Your task to perform on an android device: change the clock display to show seconds Image 0: 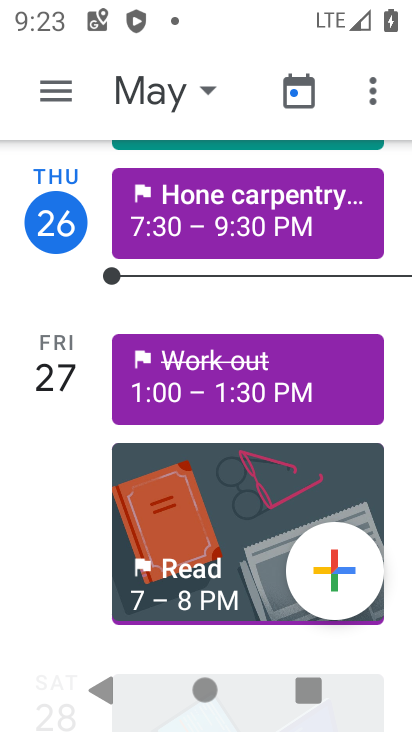
Step 0: press home button
Your task to perform on an android device: change the clock display to show seconds Image 1: 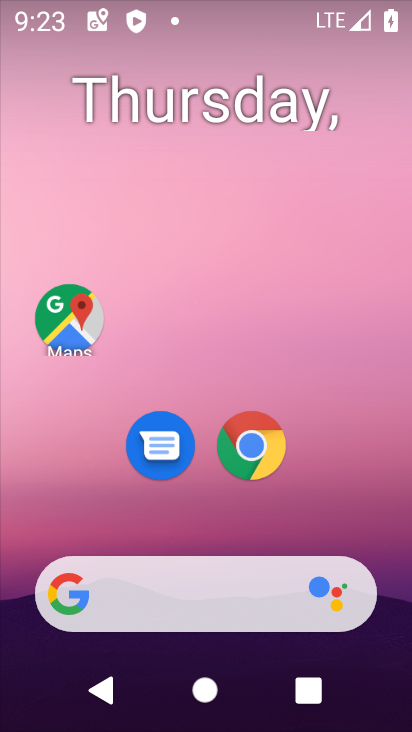
Step 1: drag from (181, 537) to (340, 123)
Your task to perform on an android device: change the clock display to show seconds Image 2: 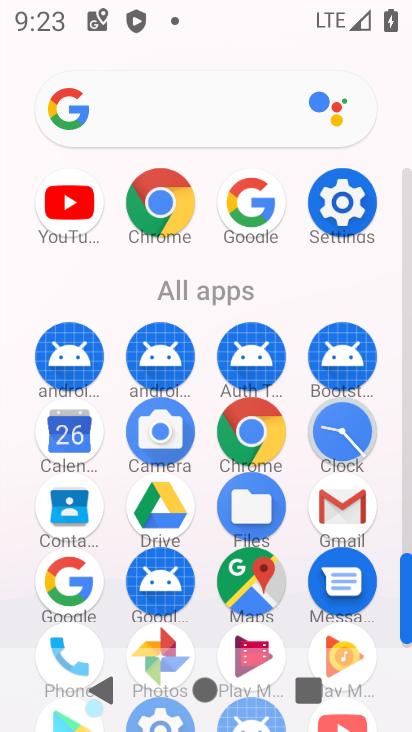
Step 2: click (333, 430)
Your task to perform on an android device: change the clock display to show seconds Image 3: 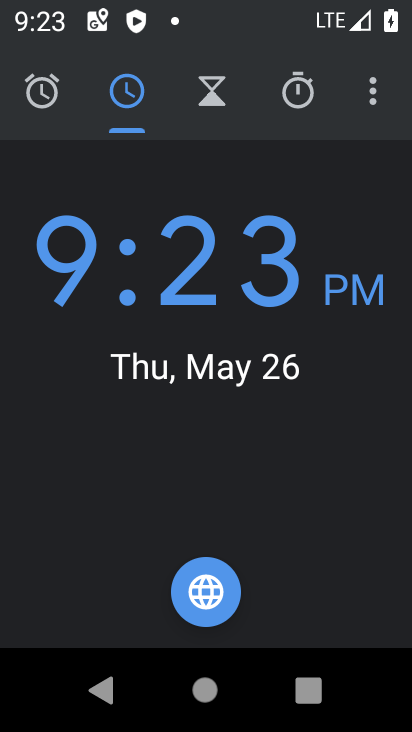
Step 3: click (365, 90)
Your task to perform on an android device: change the clock display to show seconds Image 4: 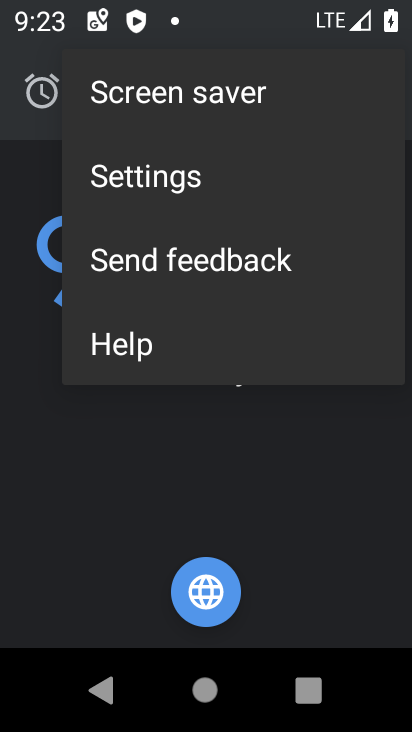
Step 4: click (284, 166)
Your task to perform on an android device: change the clock display to show seconds Image 5: 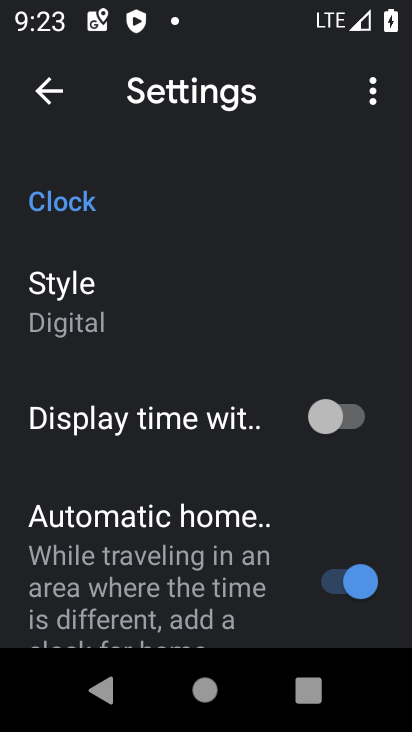
Step 5: click (378, 409)
Your task to perform on an android device: change the clock display to show seconds Image 6: 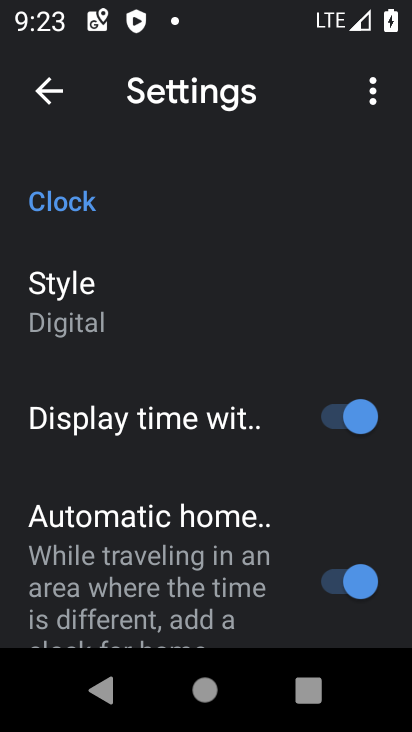
Step 6: task complete